Your task to perform on an android device: Open the web browser Image 0: 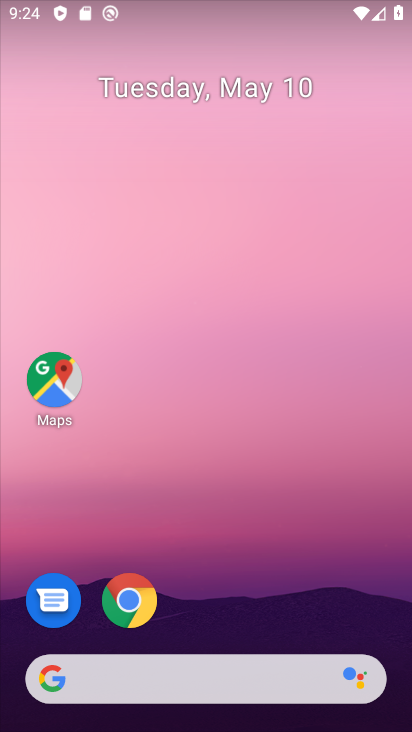
Step 0: click (131, 605)
Your task to perform on an android device: Open the web browser Image 1: 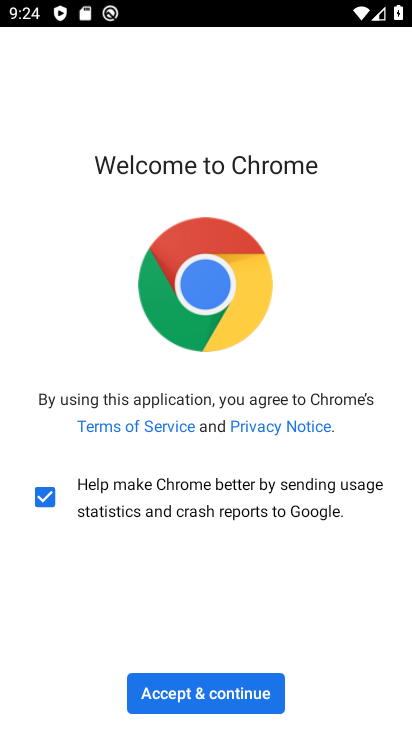
Step 1: click (219, 708)
Your task to perform on an android device: Open the web browser Image 2: 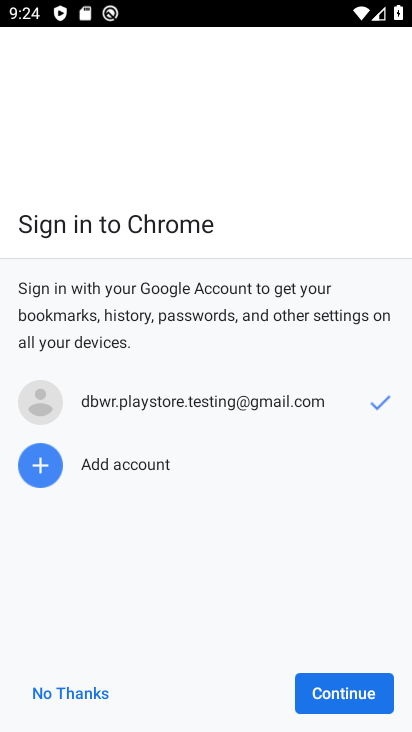
Step 2: click (341, 694)
Your task to perform on an android device: Open the web browser Image 3: 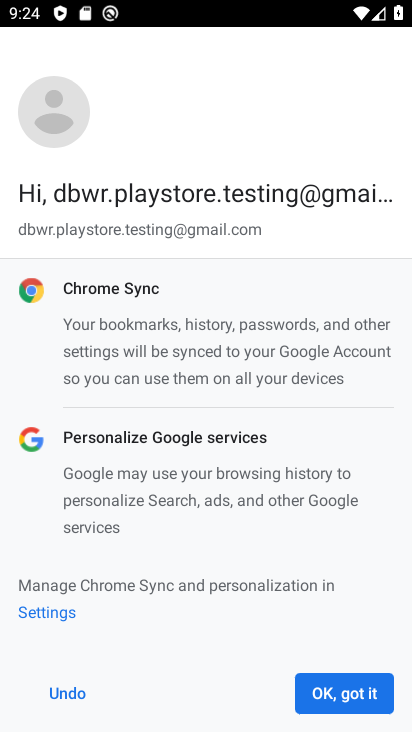
Step 3: click (341, 694)
Your task to perform on an android device: Open the web browser Image 4: 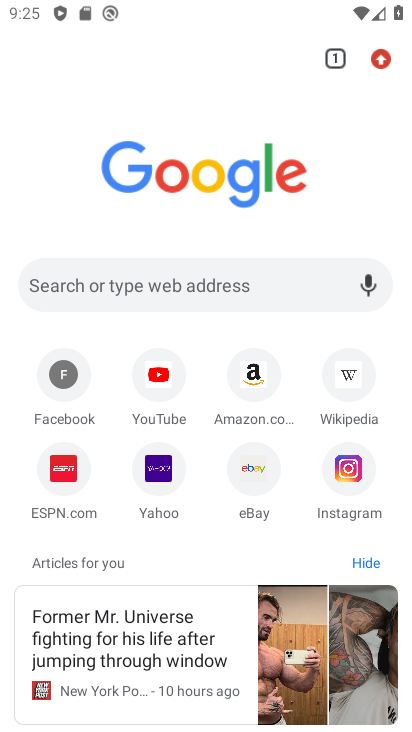
Step 4: task complete